Your task to perform on an android device: check google app version Image 0: 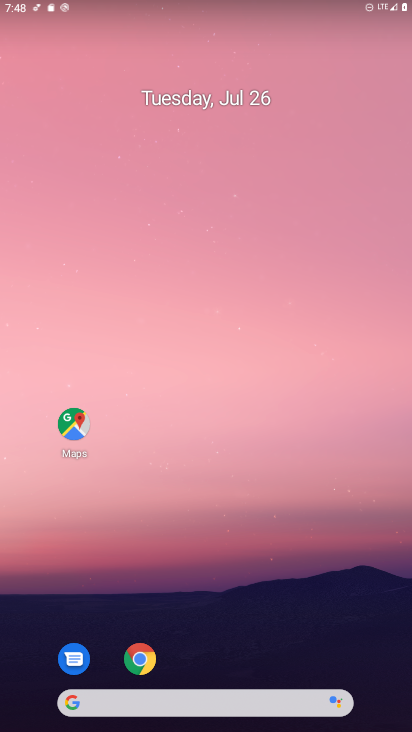
Step 0: drag from (215, 628) to (303, 116)
Your task to perform on an android device: check google app version Image 1: 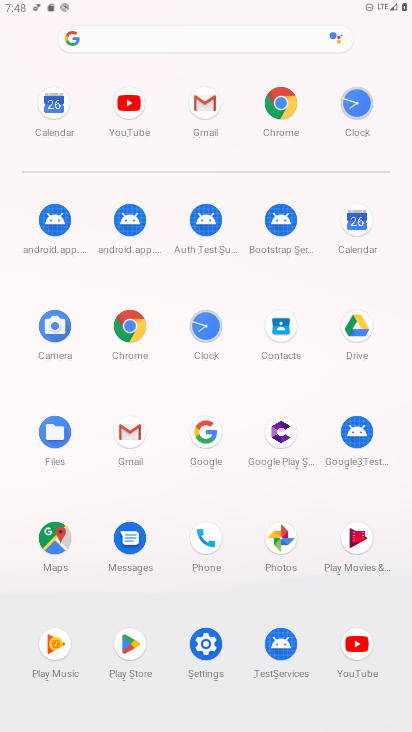
Step 1: click (209, 426)
Your task to perform on an android device: check google app version Image 2: 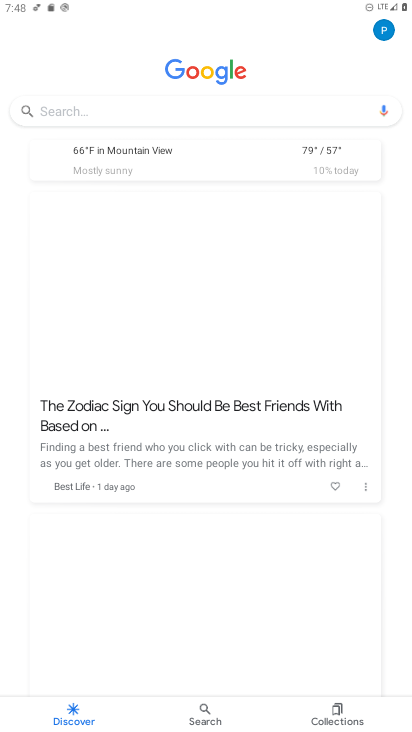
Step 2: click (387, 32)
Your task to perform on an android device: check google app version Image 3: 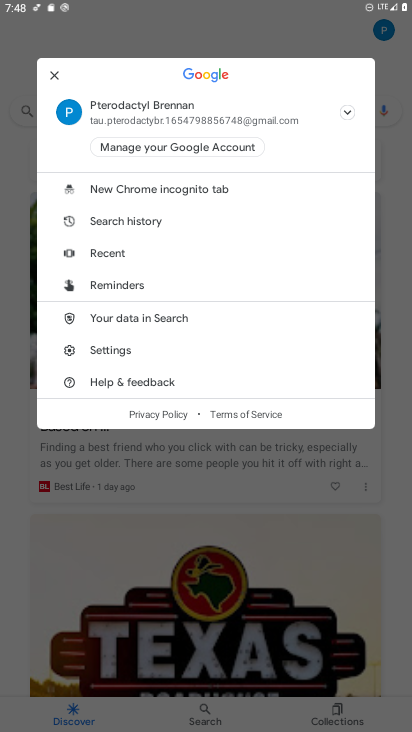
Step 3: click (123, 342)
Your task to perform on an android device: check google app version Image 4: 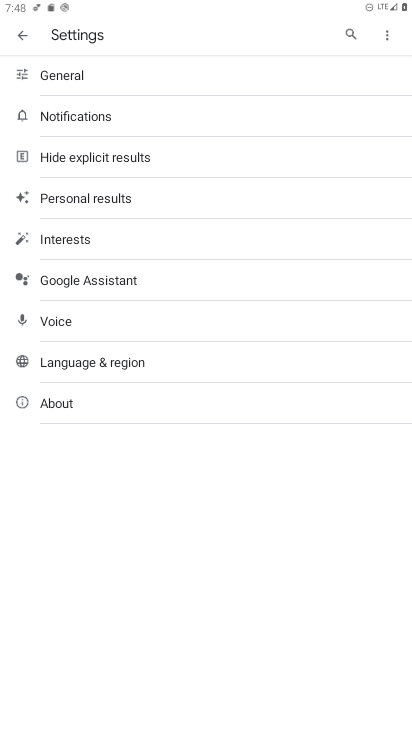
Step 4: click (74, 401)
Your task to perform on an android device: check google app version Image 5: 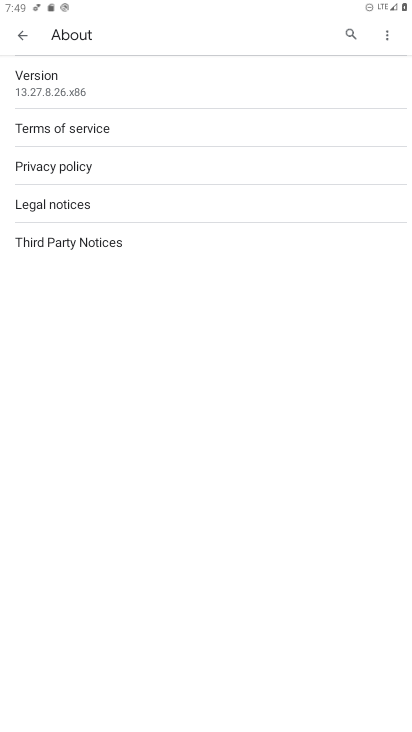
Step 5: click (143, 82)
Your task to perform on an android device: check google app version Image 6: 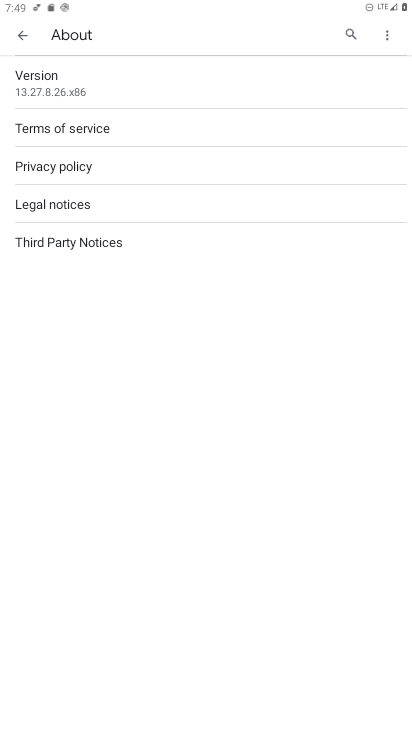
Step 6: task complete